Your task to perform on an android device: Search for "logitech g pro" on newegg.com, select the first entry, add it to the cart, then select checkout. Image 0: 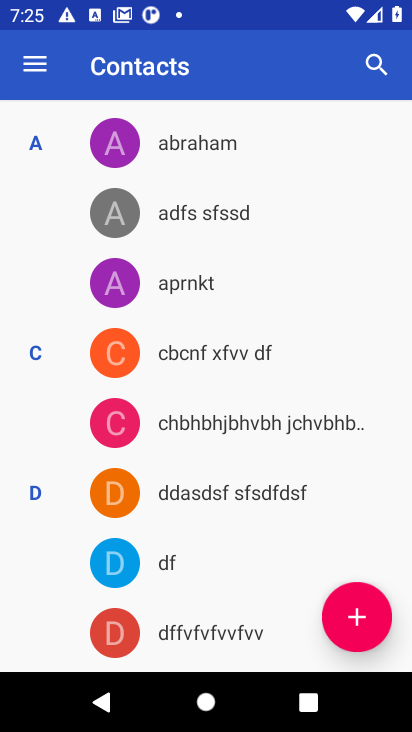
Step 0: press home button
Your task to perform on an android device: Search for "logitech g pro" on newegg.com, select the first entry, add it to the cart, then select checkout. Image 1: 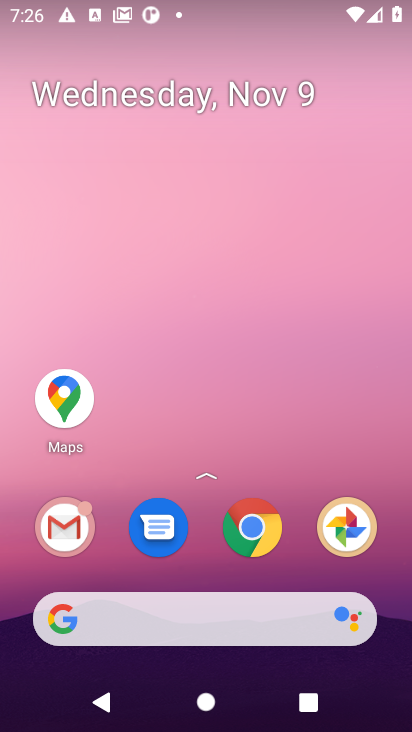
Step 1: click (255, 535)
Your task to perform on an android device: Search for "logitech g pro" on newegg.com, select the first entry, add it to the cart, then select checkout. Image 2: 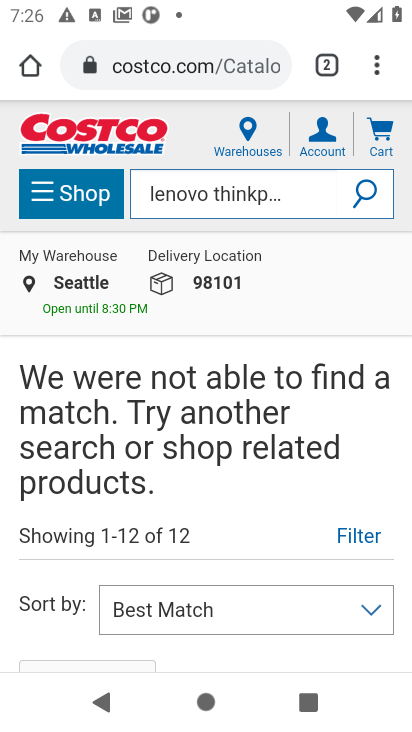
Step 2: click (161, 64)
Your task to perform on an android device: Search for "logitech g pro" on newegg.com, select the first entry, add it to the cart, then select checkout. Image 3: 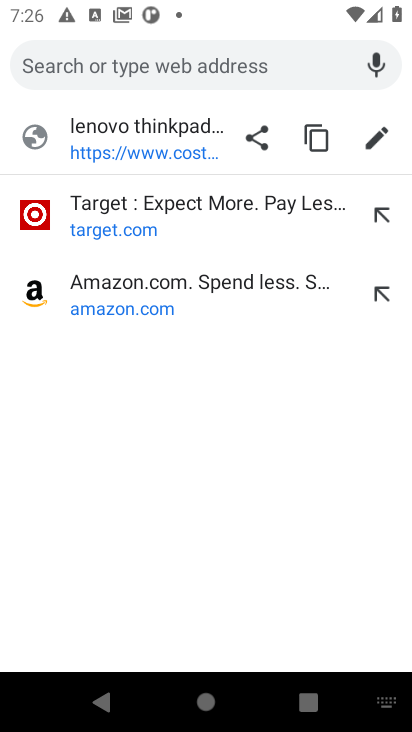
Step 3: type "newegg.com"
Your task to perform on an android device: Search for "logitech g pro" on newegg.com, select the first entry, add it to the cart, then select checkout. Image 4: 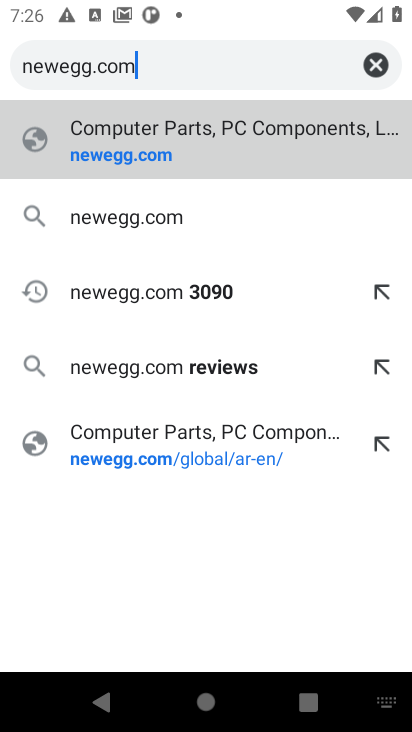
Step 4: click (105, 152)
Your task to perform on an android device: Search for "logitech g pro" on newegg.com, select the first entry, add it to the cart, then select checkout. Image 5: 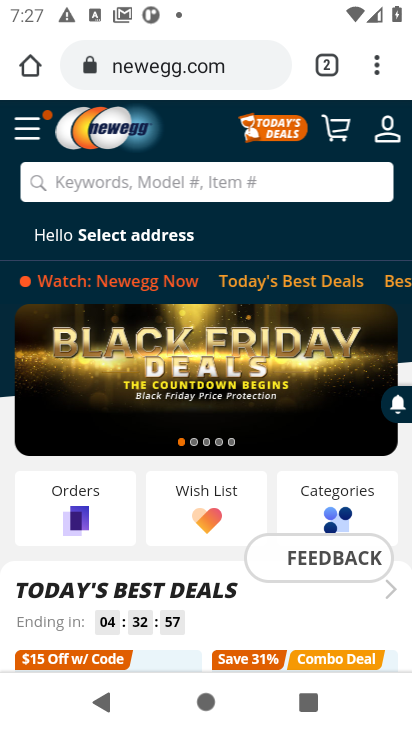
Step 5: click (82, 184)
Your task to perform on an android device: Search for "logitech g pro" on newegg.com, select the first entry, add it to the cart, then select checkout. Image 6: 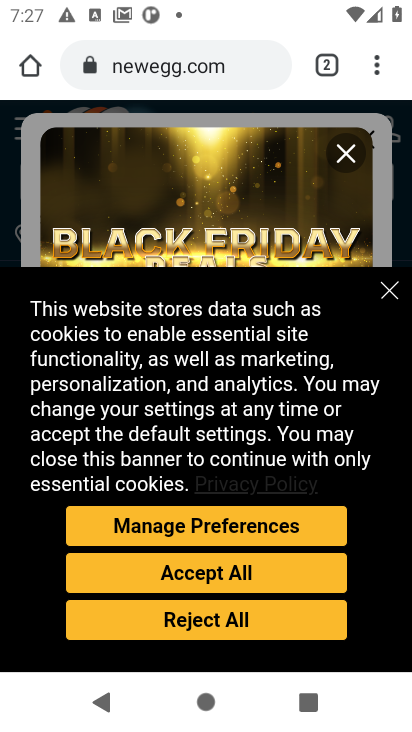
Step 6: type "logitech g pro"
Your task to perform on an android device: Search for "logitech g pro" on newegg.com, select the first entry, add it to the cart, then select checkout. Image 7: 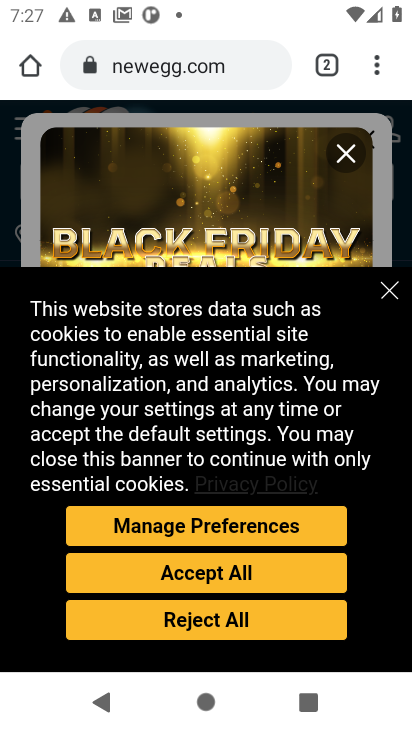
Step 7: click (348, 162)
Your task to perform on an android device: Search for "logitech g pro" on newegg.com, select the first entry, add it to the cart, then select checkout. Image 8: 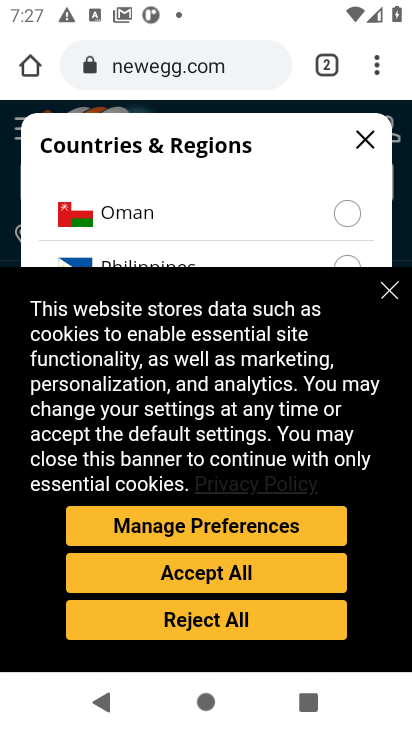
Step 8: click (391, 299)
Your task to perform on an android device: Search for "logitech g pro" on newegg.com, select the first entry, add it to the cart, then select checkout. Image 9: 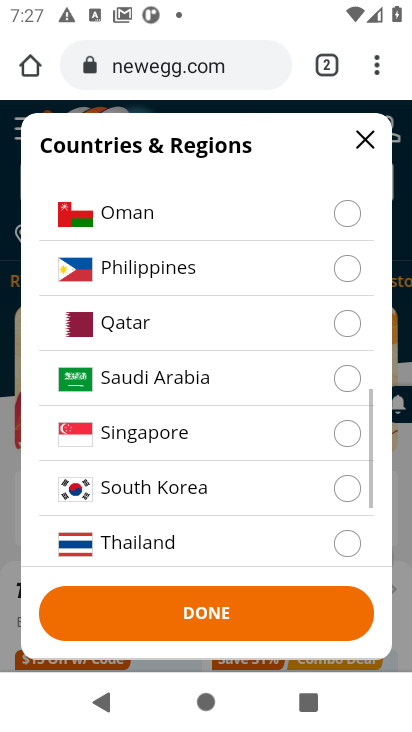
Step 9: drag from (226, 296) to (224, 568)
Your task to perform on an android device: Search for "logitech g pro" on newegg.com, select the first entry, add it to the cart, then select checkout. Image 10: 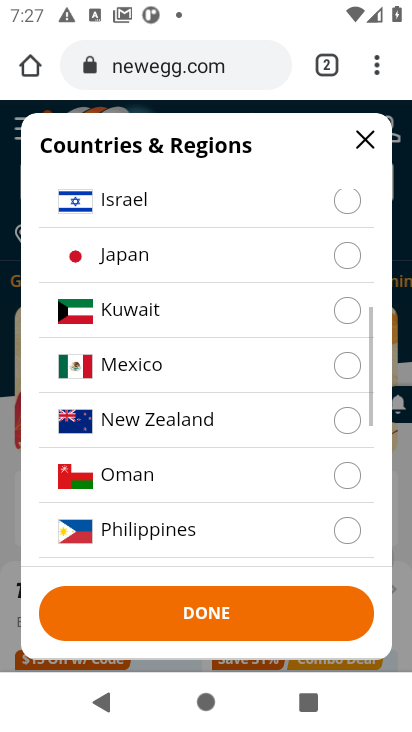
Step 10: drag from (245, 280) to (235, 537)
Your task to perform on an android device: Search for "logitech g pro" on newegg.com, select the first entry, add it to the cart, then select checkout. Image 11: 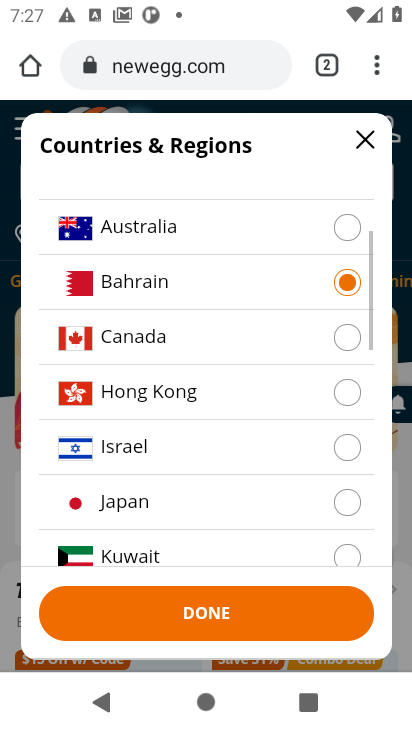
Step 11: drag from (227, 289) to (220, 528)
Your task to perform on an android device: Search for "logitech g pro" on newegg.com, select the first entry, add it to the cart, then select checkout. Image 12: 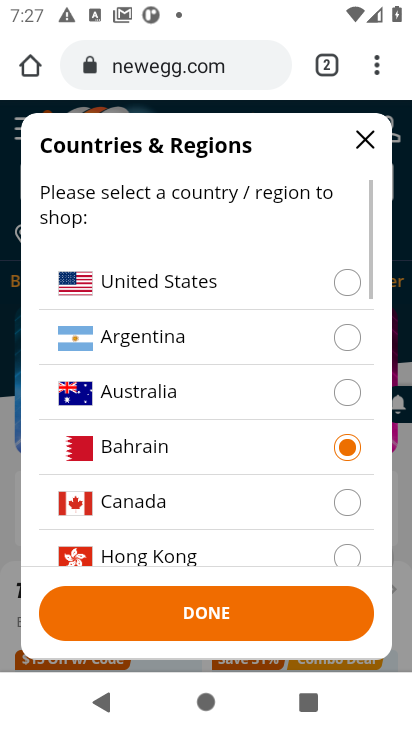
Step 12: click (347, 273)
Your task to perform on an android device: Search for "logitech g pro" on newegg.com, select the first entry, add it to the cart, then select checkout. Image 13: 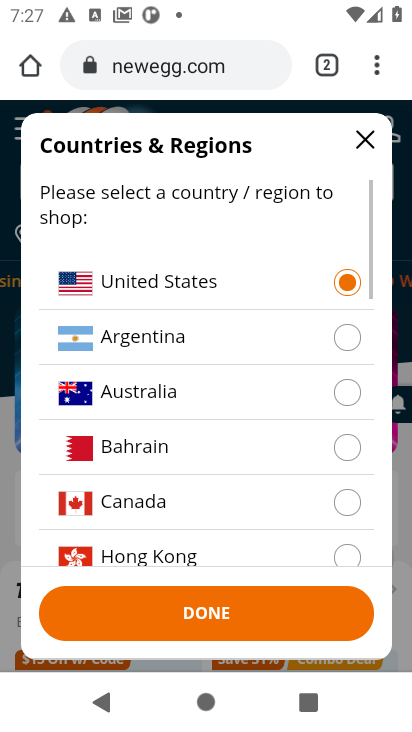
Step 13: click (173, 609)
Your task to perform on an android device: Search for "logitech g pro" on newegg.com, select the first entry, add it to the cart, then select checkout. Image 14: 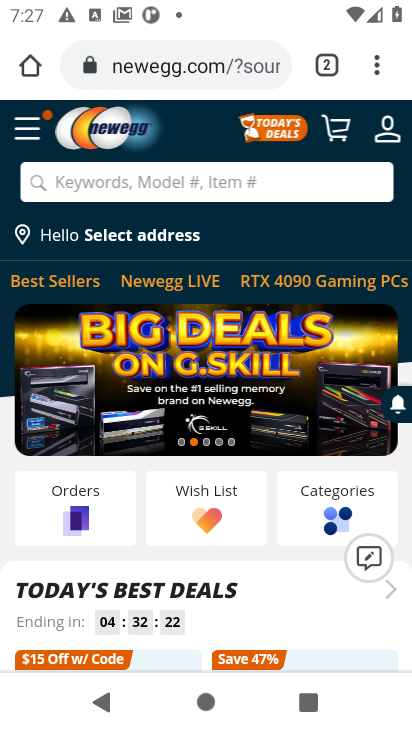
Step 14: click (85, 188)
Your task to perform on an android device: Search for "logitech g pro" on newegg.com, select the first entry, add it to the cart, then select checkout. Image 15: 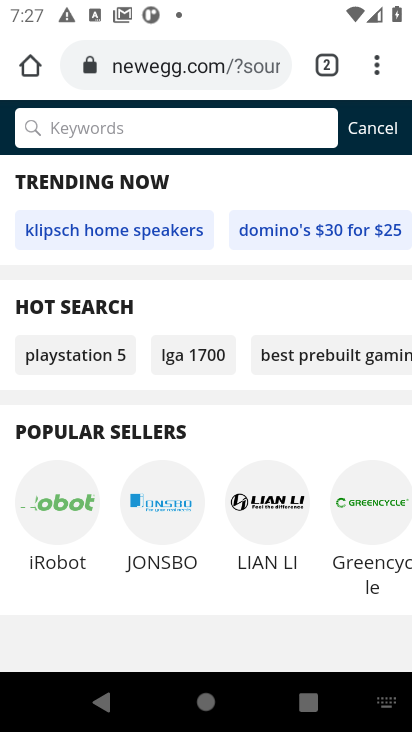
Step 15: type "logitech g pro"
Your task to perform on an android device: Search for "logitech g pro" on newegg.com, select the first entry, add it to the cart, then select checkout. Image 16: 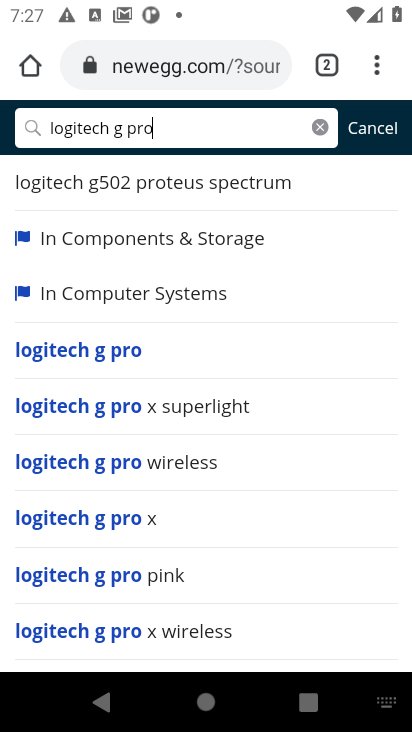
Step 16: click (83, 358)
Your task to perform on an android device: Search for "logitech g pro" on newegg.com, select the first entry, add it to the cart, then select checkout. Image 17: 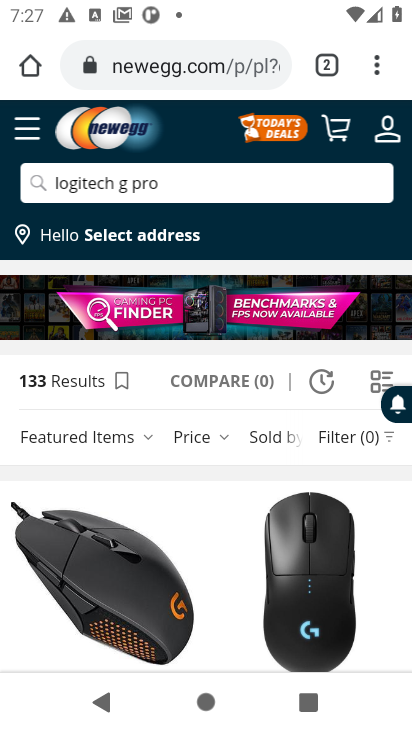
Step 17: task complete